Your task to perform on an android device: check battery use Image 0: 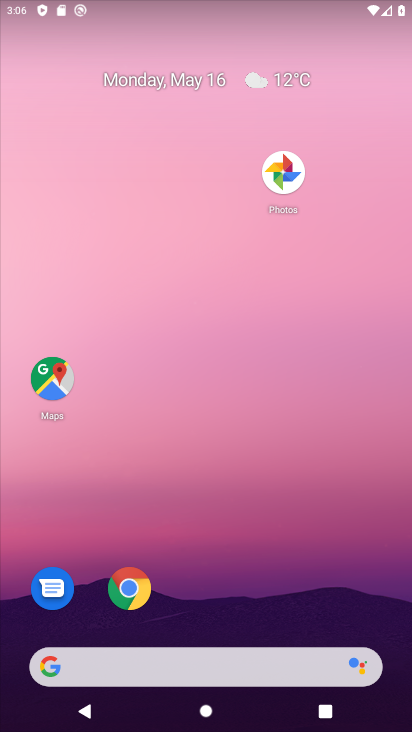
Step 0: drag from (215, 618) to (284, 27)
Your task to perform on an android device: check battery use Image 1: 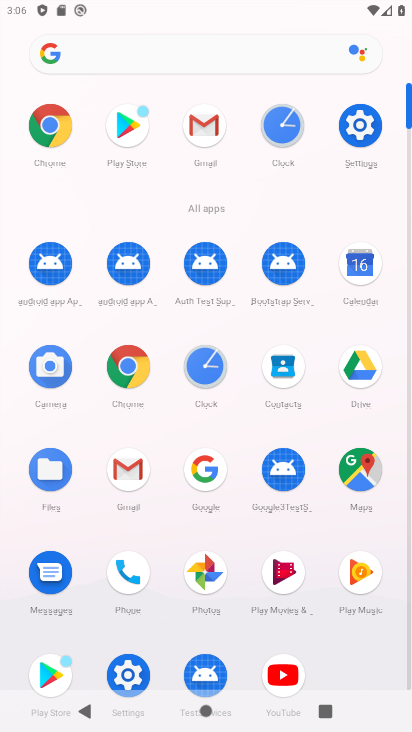
Step 1: click (350, 139)
Your task to perform on an android device: check battery use Image 2: 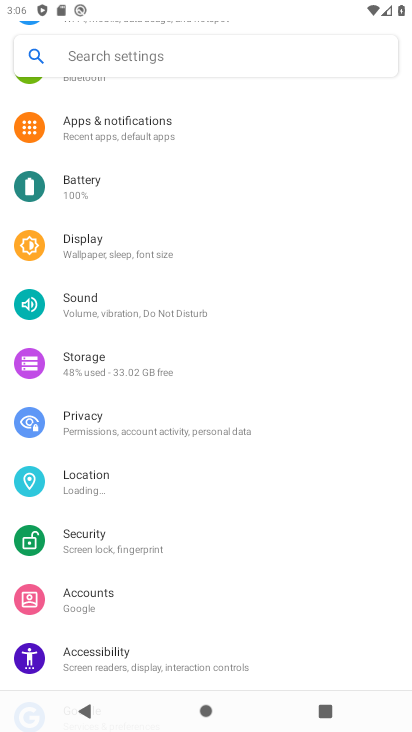
Step 2: click (174, 169)
Your task to perform on an android device: check battery use Image 3: 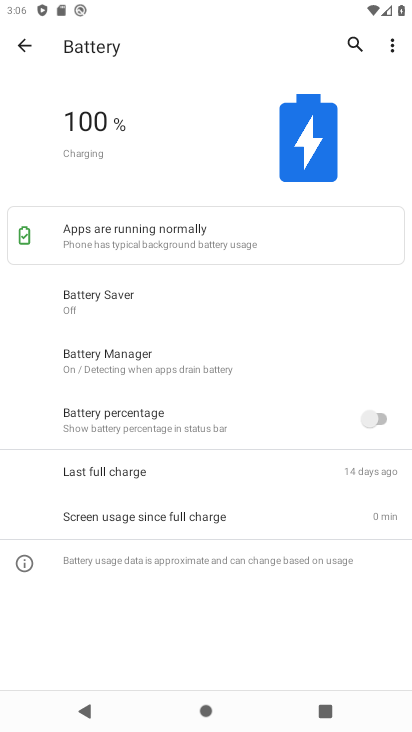
Step 3: click (118, 182)
Your task to perform on an android device: check battery use Image 4: 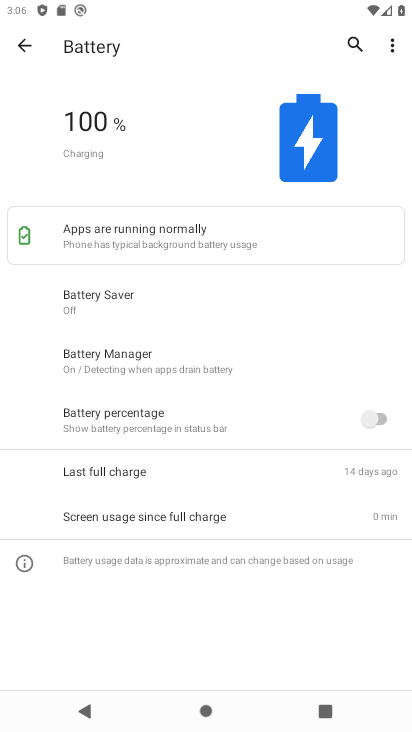
Step 4: click (395, 39)
Your task to perform on an android device: check battery use Image 5: 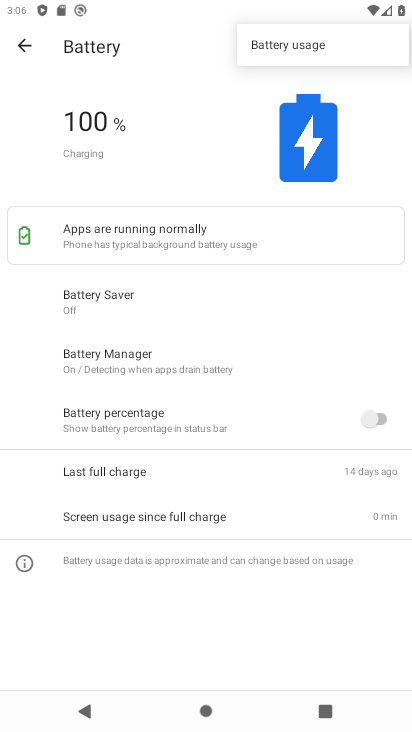
Step 5: click (324, 40)
Your task to perform on an android device: check battery use Image 6: 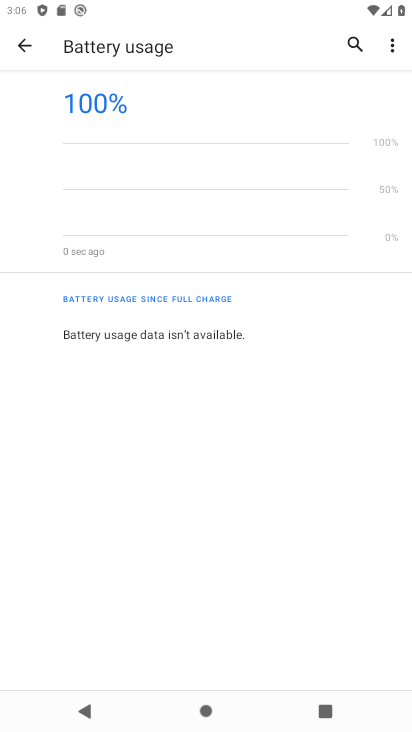
Step 6: task complete